Your task to perform on an android device: turn off sleep mode Image 0: 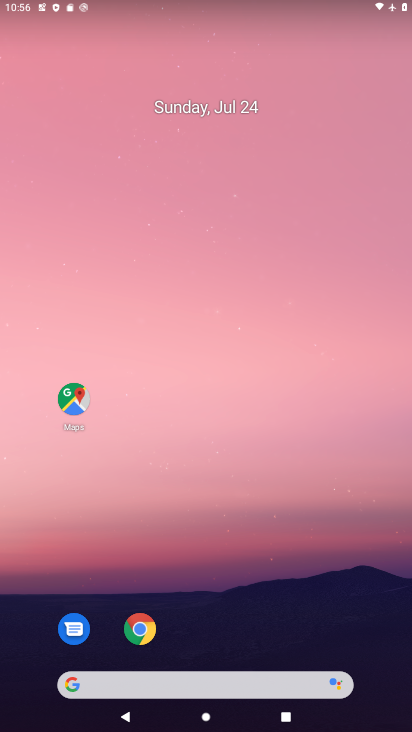
Step 0: drag from (218, 649) to (212, 155)
Your task to perform on an android device: turn off sleep mode Image 1: 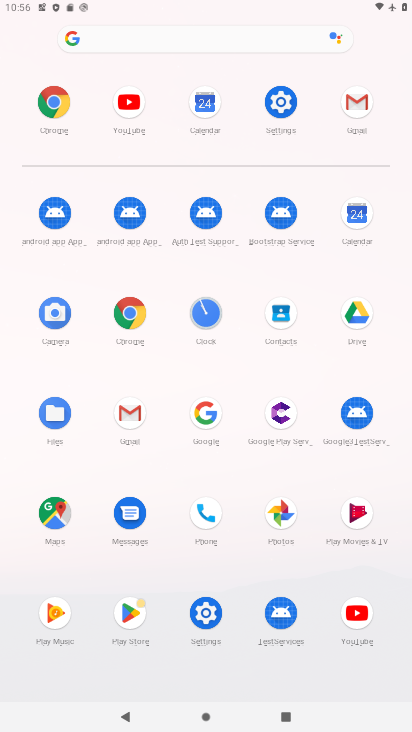
Step 1: click (282, 128)
Your task to perform on an android device: turn off sleep mode Image 2: 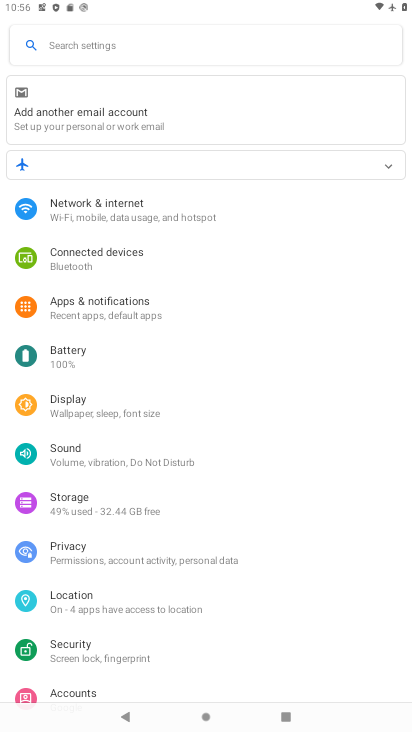
Step 2: task complete